Your task to perform on an android device: Show me popular videos on Youtube Image 0: 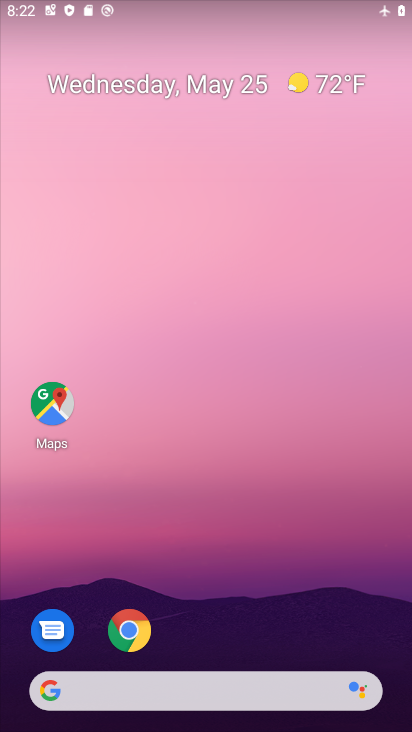
Step 0: drag from (185, 645) to (228, 204)
Your task to perform on an android device: Show me popular videos on Youtube Image 1: 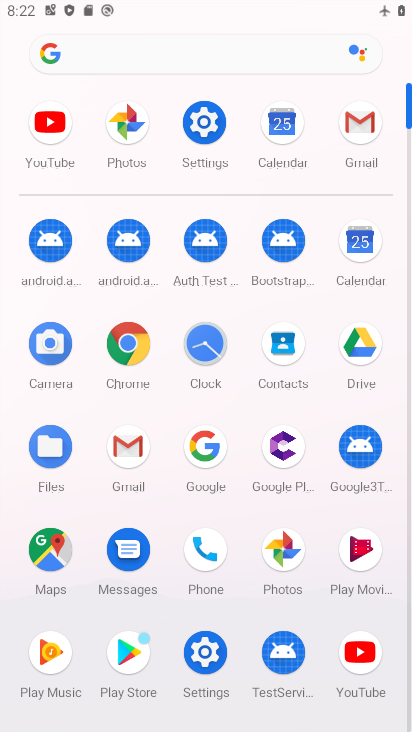
Step 1: click (363, 661)
Your task to perform on an android device: Show me popular videos on Youtube Image 2: 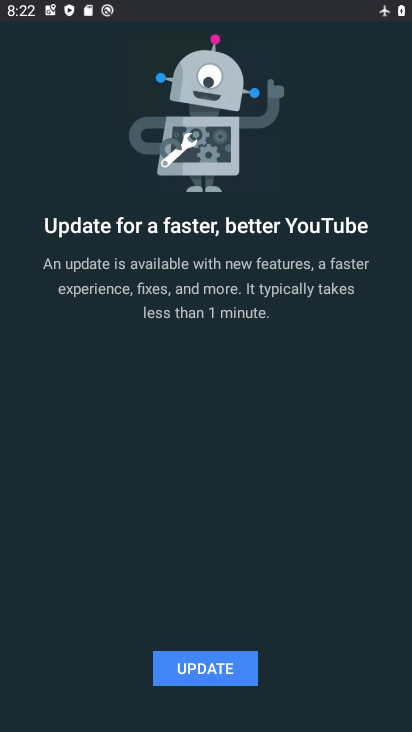
Step 2: click (243, 654)
Your task to perform on an android device: Show me popular videos on Youtube Image 3: 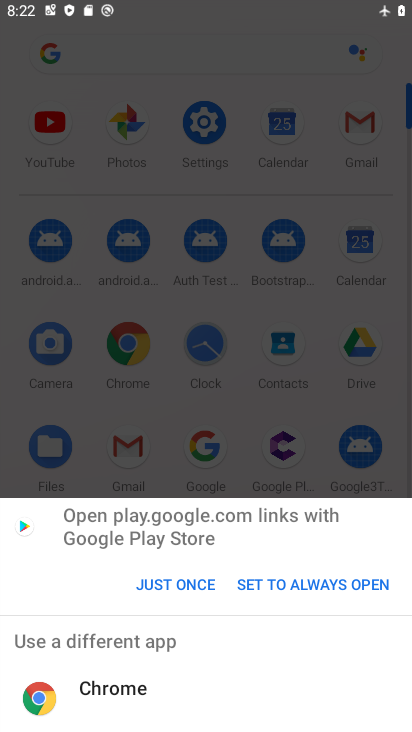
Step 3: click (172, 574)
Your task to perform on an android device: Show me popular videos on Youtube Image 4: 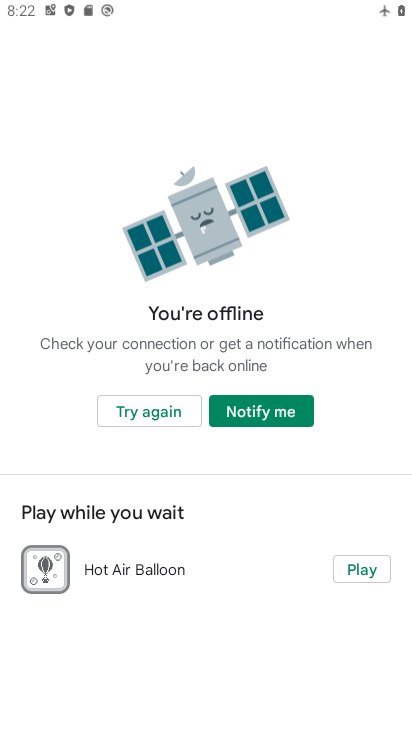
Step 4: task complete